Your task to perform on an android device: Open Android settings Image 0: 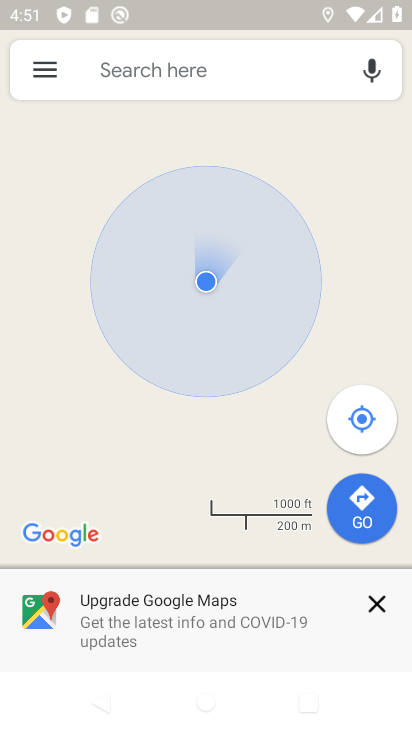
Step 0: drag from (327, 484) to (320, 47)
Your task to perform on an android device: Open Android settings Image 1: 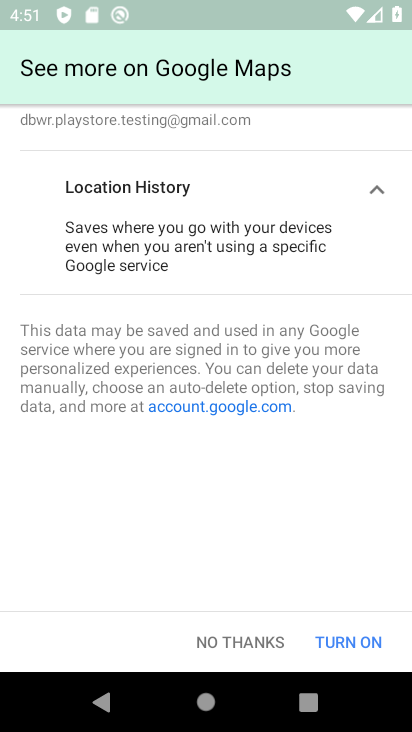
Step 1: press home button
Your task to perform on an android device: Open Android settings Image 2: 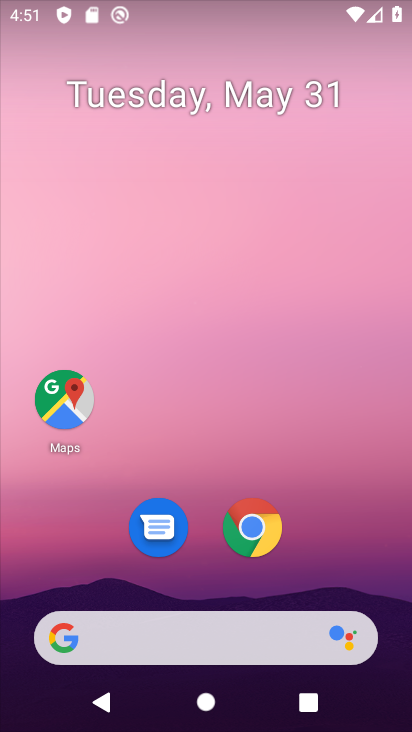
Step 2: drag from (303, 579) to (277, 66)
Your task to perform on an android device: Open Android settings Image 3: 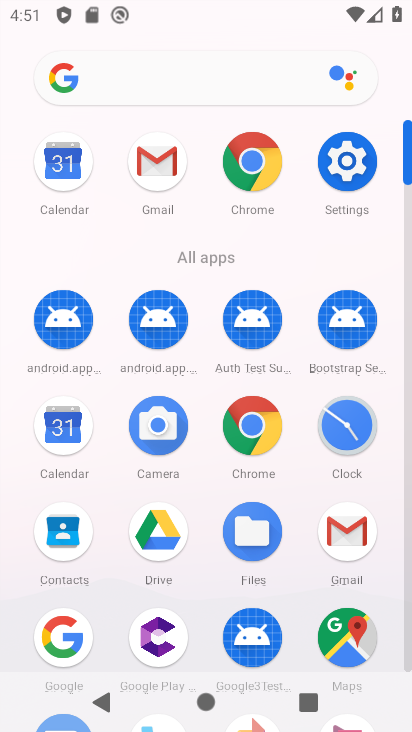
Step 3: click (343, 160)
Your task to perform on an android device: Open Android settings Image 4: 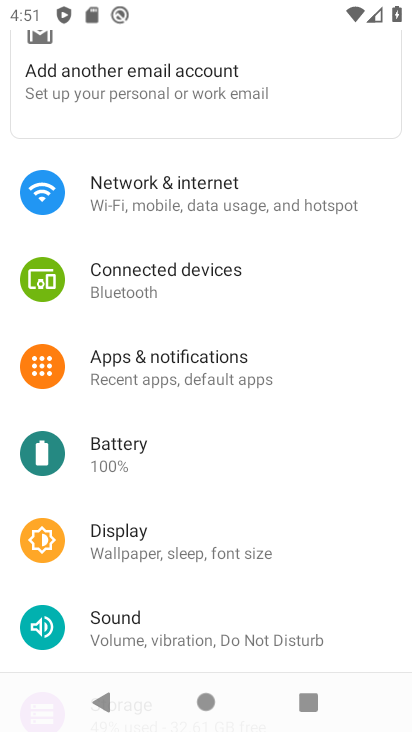
Step 4: drag from (256, 613) to (252, 245)
Your task to perform on an android device: Open Android settings Image 5: 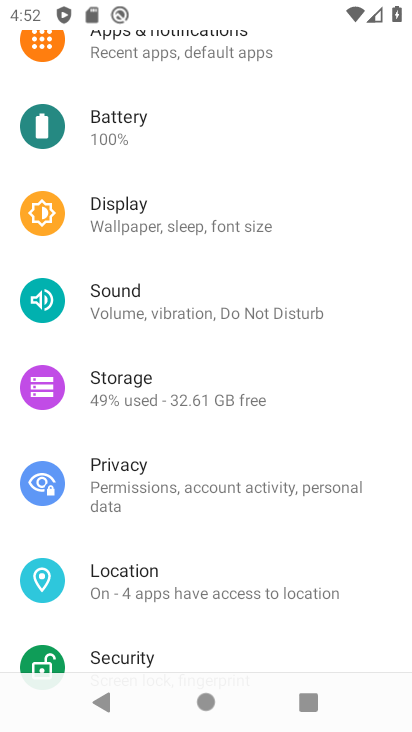
Step 5: drag from (162, 537) to (171, 237)
Your task to perform on an android device: Open Android settings Image 6: 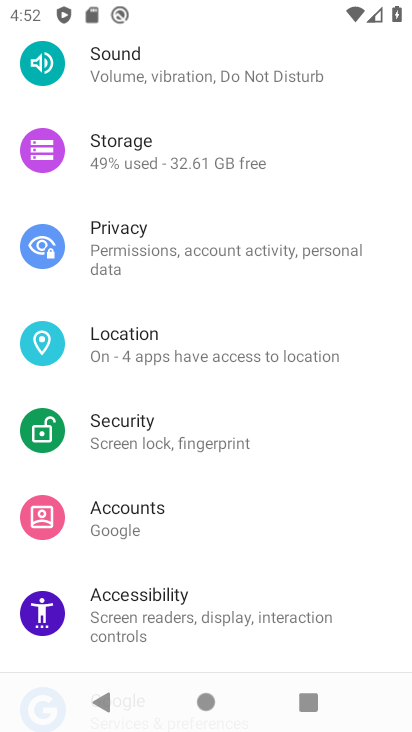
Step 6: drag from (154, 610) to (194, 215)
Your task to perform on an android device: Open Android settings Image 7: 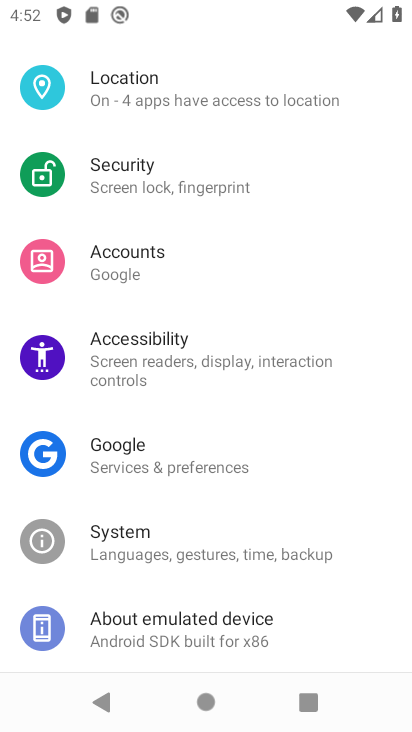
Step 7: click (142, 622)
Your task to perform on an android device: Open Android settings Image 8: 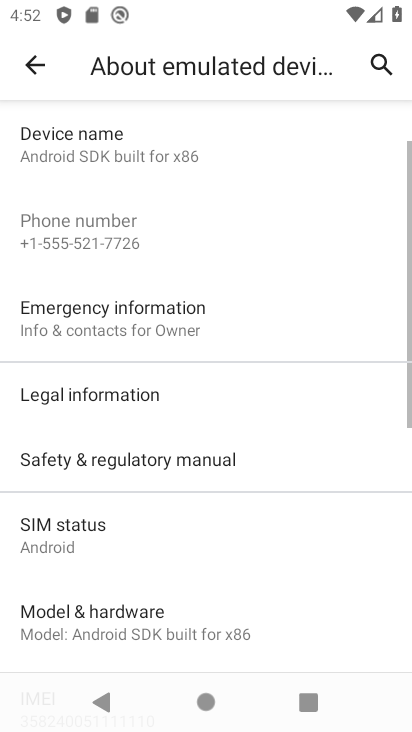
Step 8: drag from (244, 587) to (236, 338)
Your task to perform on an android device: Open Android settings Image 9: 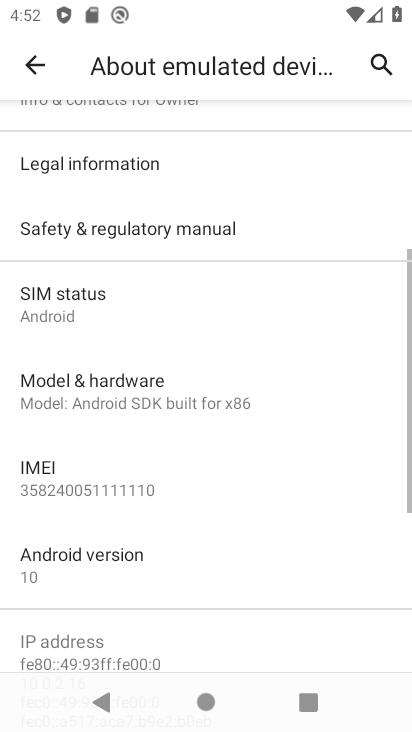
Step 9: click (72, 562)
Your task to perform on an android device: Open Android settings Image 10: 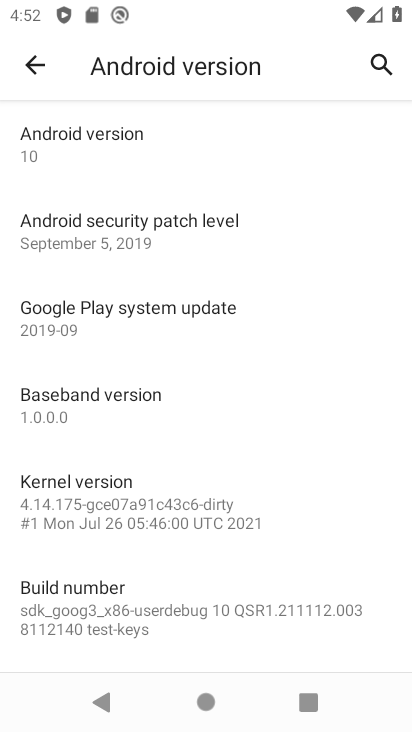
Step 10: task complete